Your task to perform on an android device: add a contact in the contacts app Image 0: 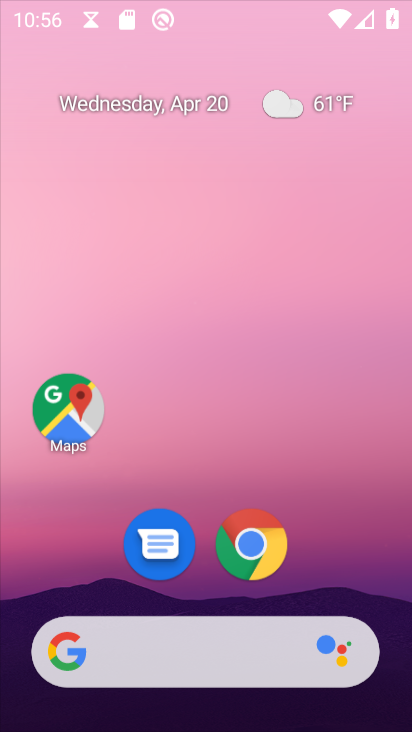
Step 0: click (257, 29)
Your task to perform on an android device: add a contact in the contacts app Image 1: 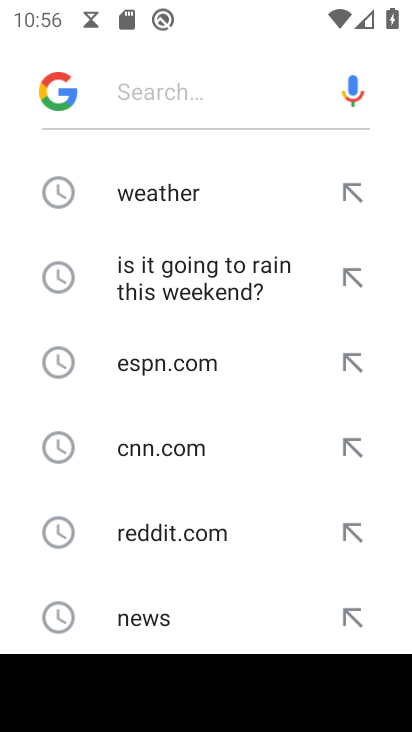
Step 1: press home button
Your task to perform on an android device: add a contact in the contacts app Image 2: 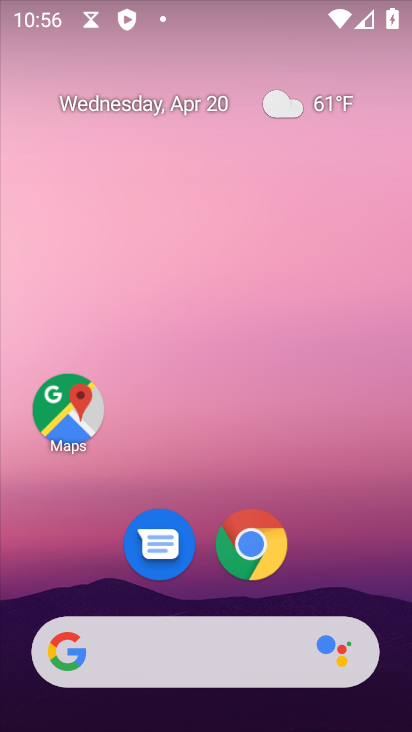
Step 2: drag from (160, 612) to (333, 69)
Your task to perform on an android device: add a contact in the contacts app Image 3: 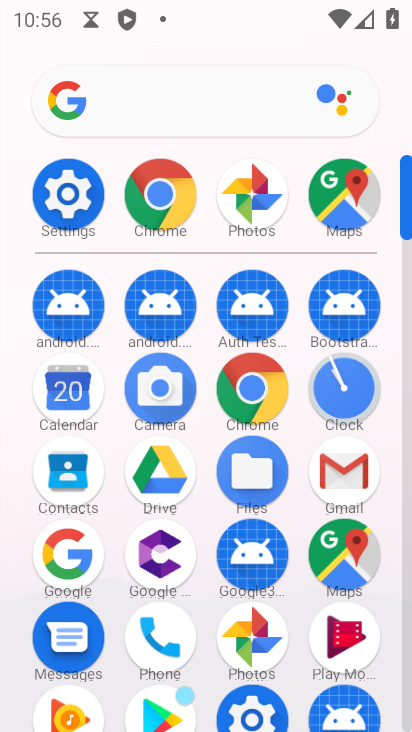
Step 3: click (75, 475)
Your task to perform on an android device: add a contact in the contacts app Image 4: 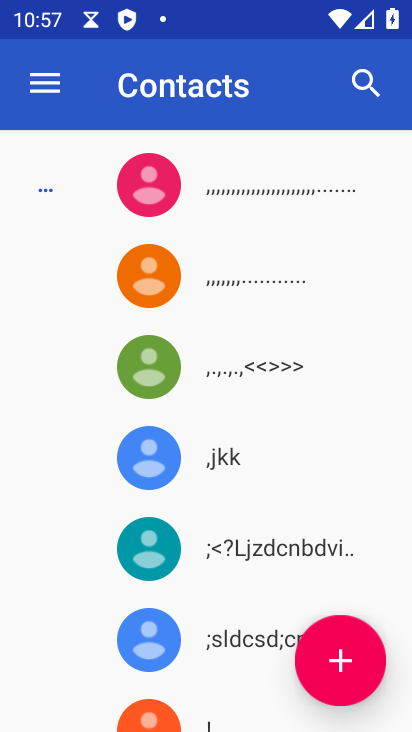
Step 4: click (336, 662)
Your task to perform on an android device: add a contact in the contacts app Image 5: 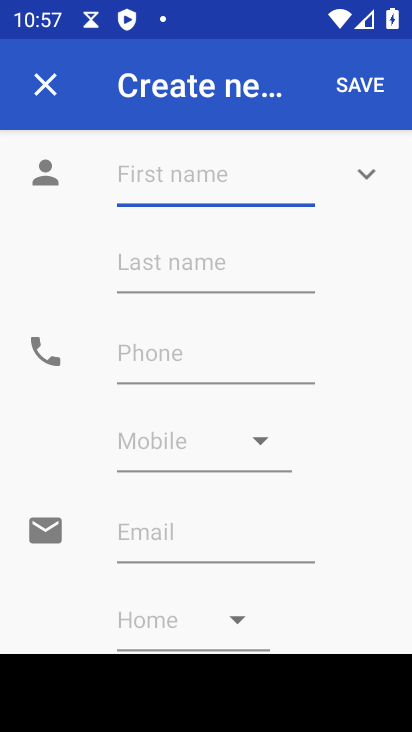
Step 5: type "egtrdfsjhyv"
Your task to perform on an android device: add a contact in the contacts app Image 6: 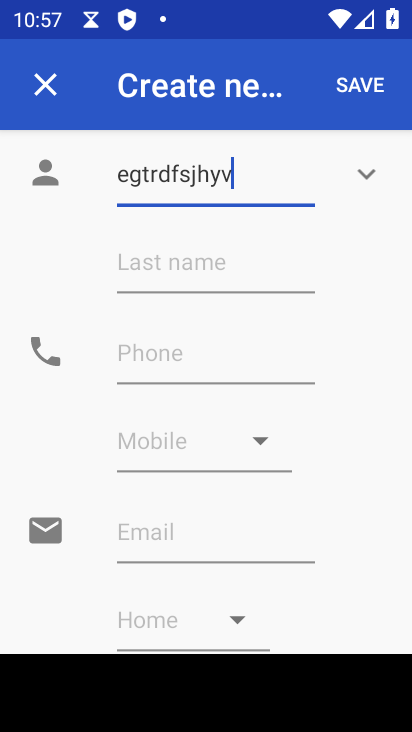
Step 6: click (162, 352)
Your task to perform on an android device: add a contact in the contacts app Image 7: 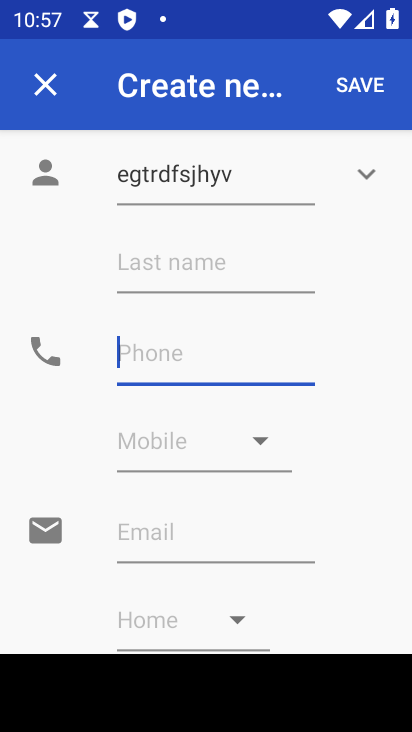
Step 7: type "9376589000"
Your task to perform on an android device: add a contact in the contacts app Image 8: 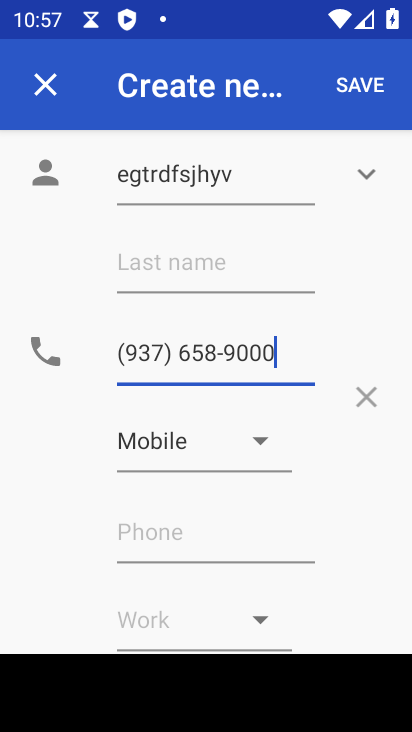
Step 8: click (368, 85)
Your task to perform on an android device: add a contact in the contacts app Image 9: 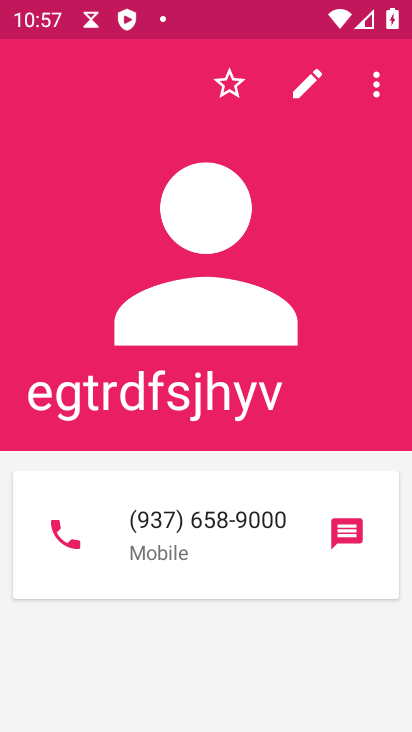
Step 9: task complete